Your task to perform on an android device: set the timer Image 0: 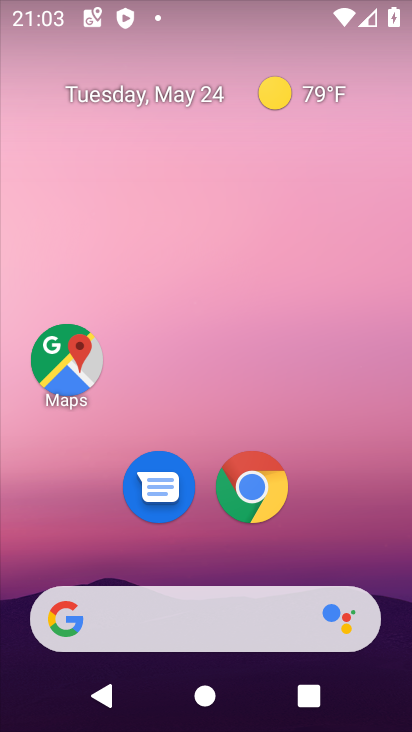
Step 0: press home button
Your task to perform on an android device: set the timer Image 1: 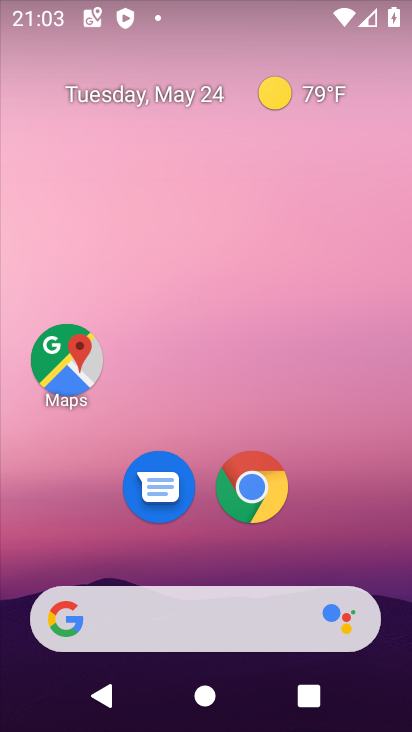
Step 1: drag from (391, 665) to (363, 135)
Your task to perform on an android device: set the timer Image 2: 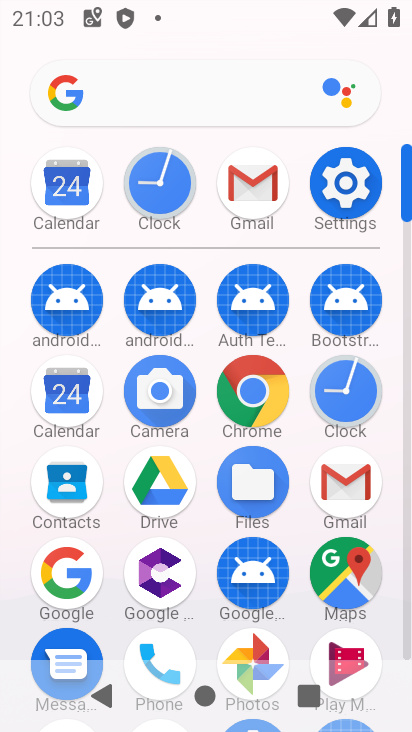
Step 2: click (327, 412)
Your task to perform on an android device: set the timer Image 3: 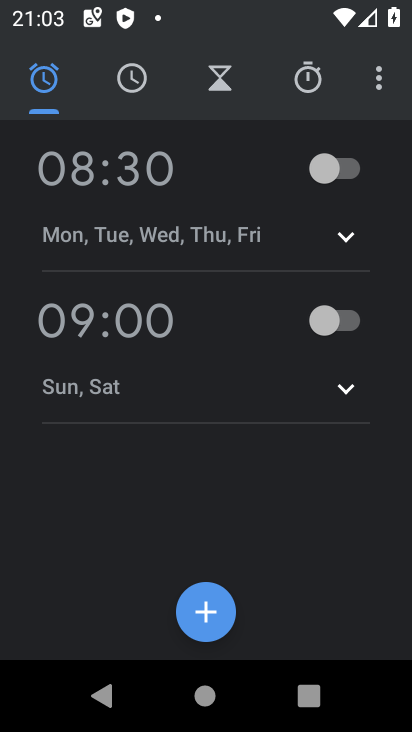
Step 3: click (219, 85)
Your task to perform on an android device: set the timer Image 4: 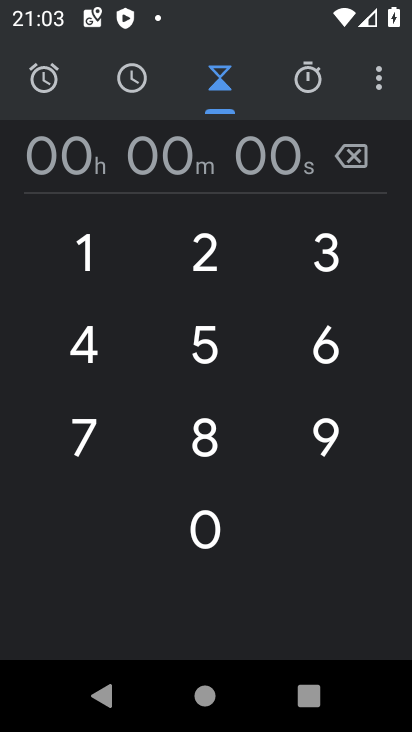
Step 4: click (198, 447)
Your task to perform on an android device: set the timer Image 5: 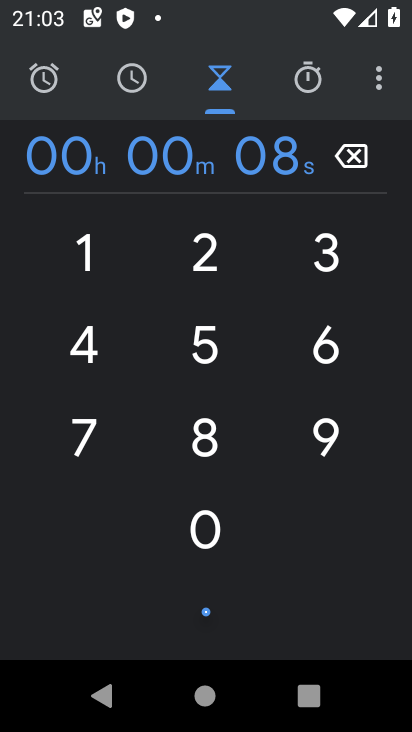
Step 5: click (198, 447)
Your task to perform on an android device: set the timer Image 6: 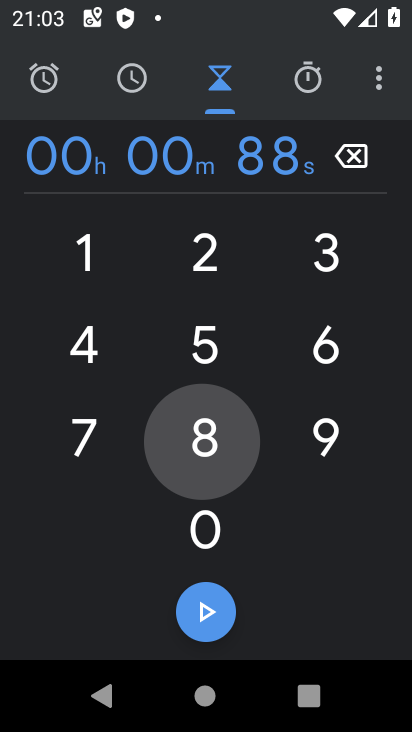
Step 6: click (198, 447)
Your task to perform on an android device: set the timer Image 7: 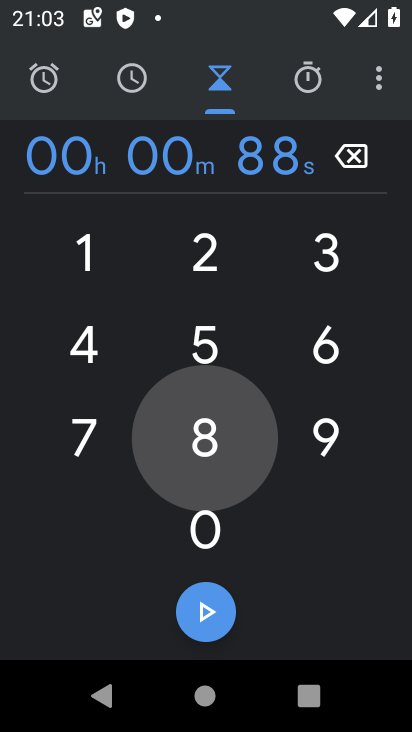
Step 7: click (198, 447)
Your task to perform on an android device: set the timer Image 8: 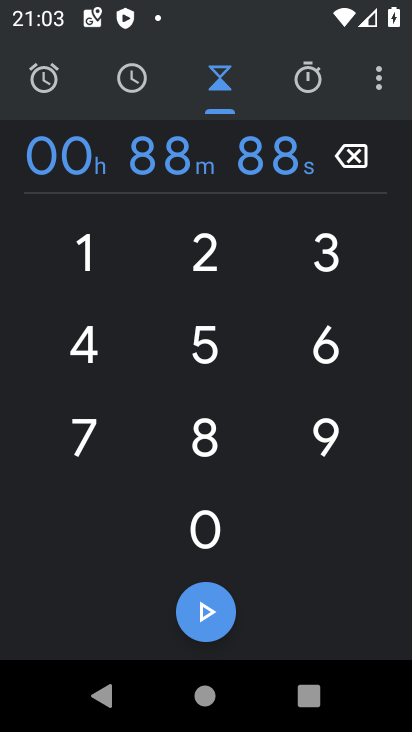
Step 8: click (212, 595)
Your task to perform on an android device: set the timer Image 9: 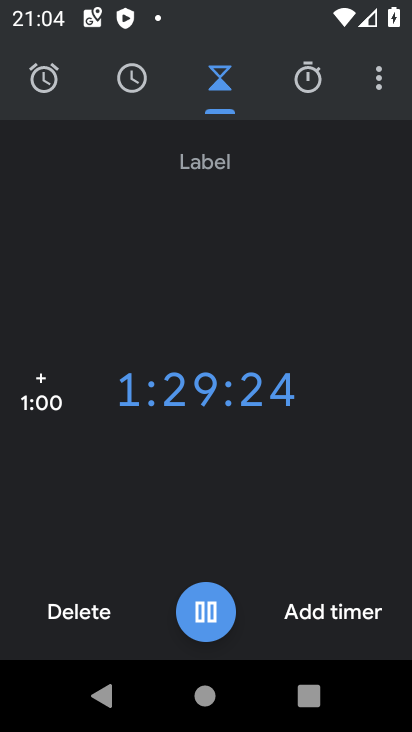
Step 9: task complete